Your task to perform on an android device: Open calendar and show me the fourth week of next month Image 0: 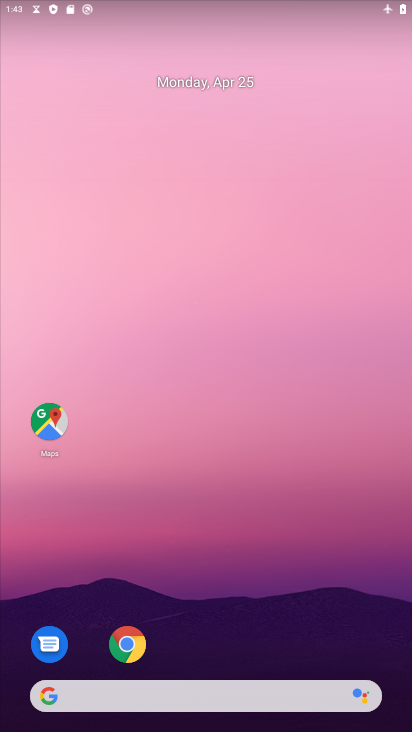
Step 0: press home button
Your task to perform on an android device: Open calendar and show me the fourth week of next month Image 1: 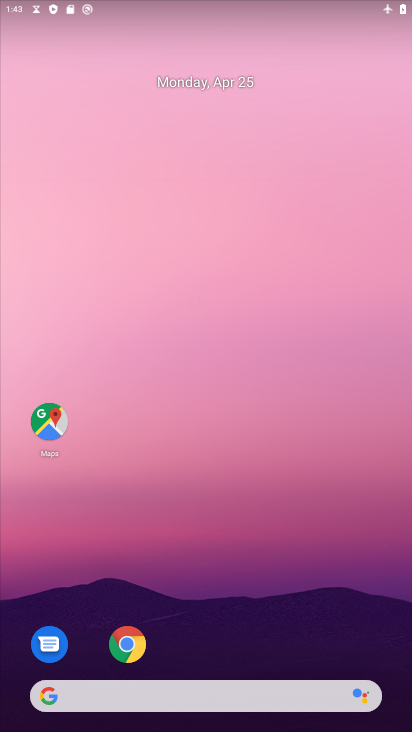
Step 1: drag from (362, 648) to (379, 65)
Your task to perform on an android device: Open calendar and show me the fourth week of next month Image 2: 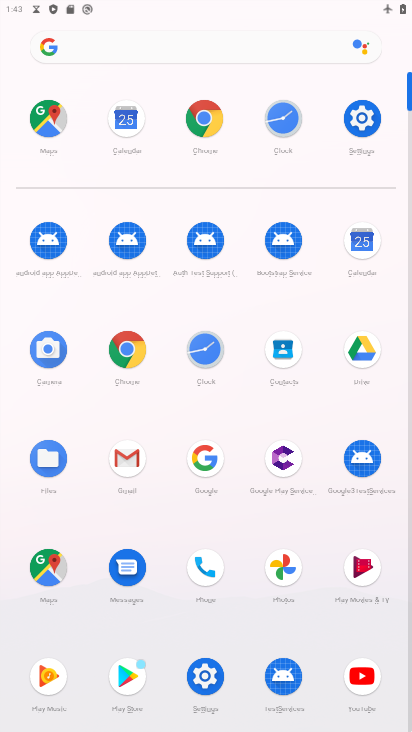
Step 2: click (122, 120)
Your task to perform on an android device: Open calendar and show me the fourth week of next month Image 3: 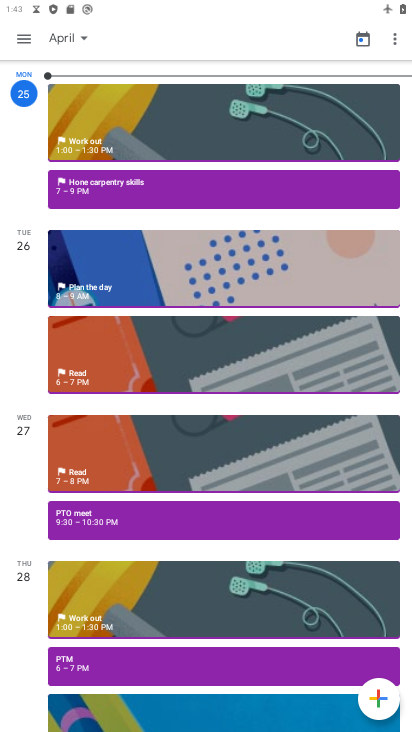
Step 3: click (88, 37)
Your task to perform on an android device: Open calendar and show me the fourth week of next month Image 4: 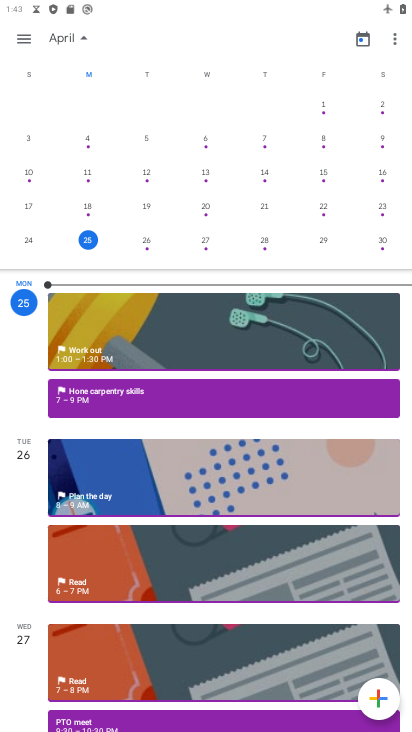
Step 4: drag from (293, 162) to (34, 211)
Your task to perform on an android device: Open calendar and show me the fourth week of next month Image 5: 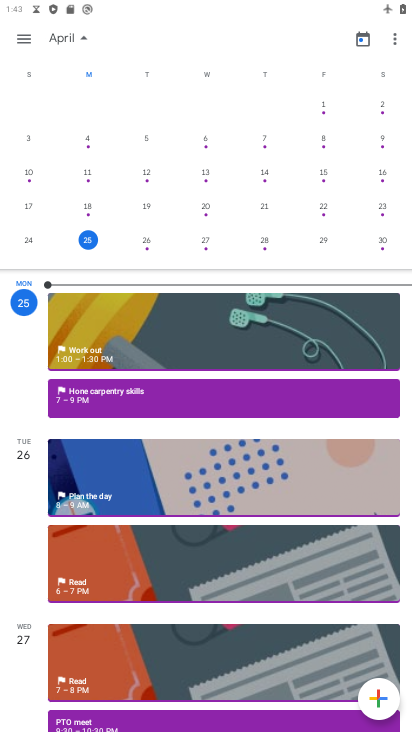
Step 5: drag from (326, 175) to (14, 204)
Your task to perform on an android device: Open calendar and show me the fourth week of next month Image 6: 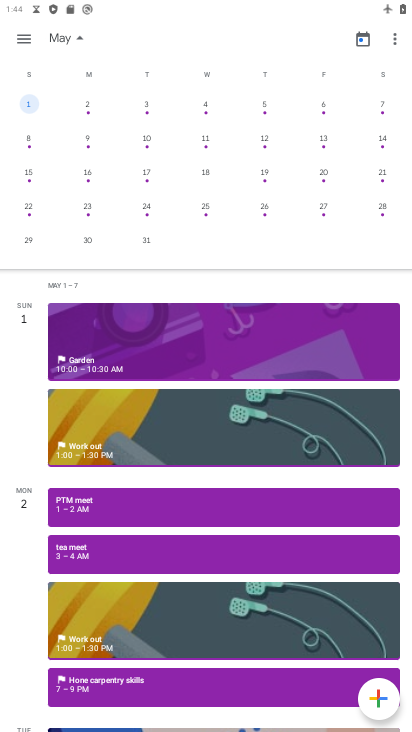
Step 6: drag from (2, 160) to (215, 182)
Your task to perform on an android device: Open calendar and show me the fourth week of next month Image 7: 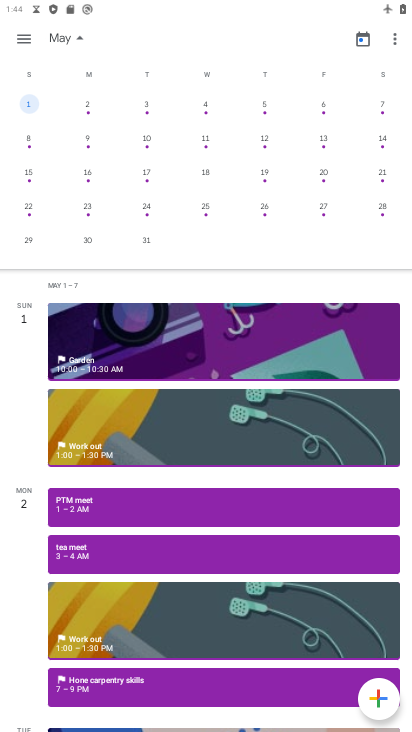
Step 7: click (34, 40)
Your task to perform on an android device: Open calendar and show me the fourth week of next month Image 8: 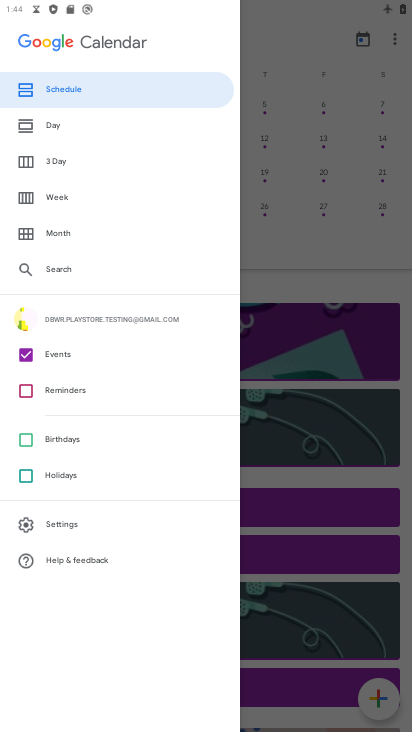
Step 8: click (43, 197)
Your task to perform on an android device: Open calendar and show me the fourth week of next month Image 9: 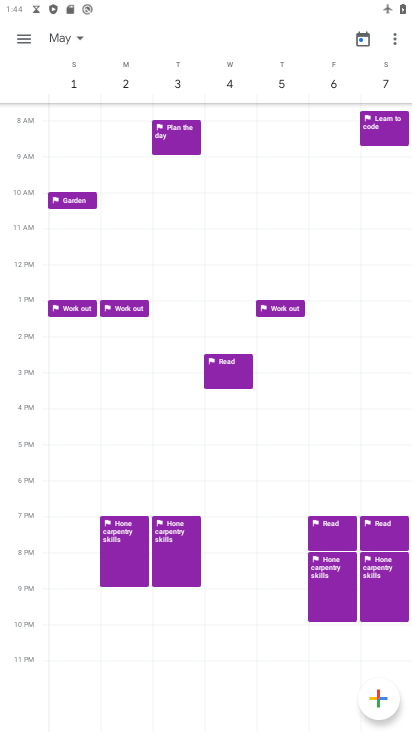
Step 9: task complete